Your task to perform on an android device: Do I have any events tomorrow? Image 0: 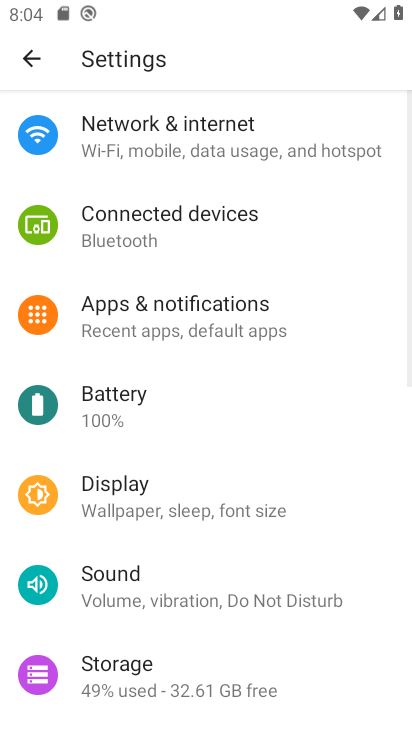
Step 0: press home button
Your task to perform on an android device: Do I have any events tomorrow? Image 1: 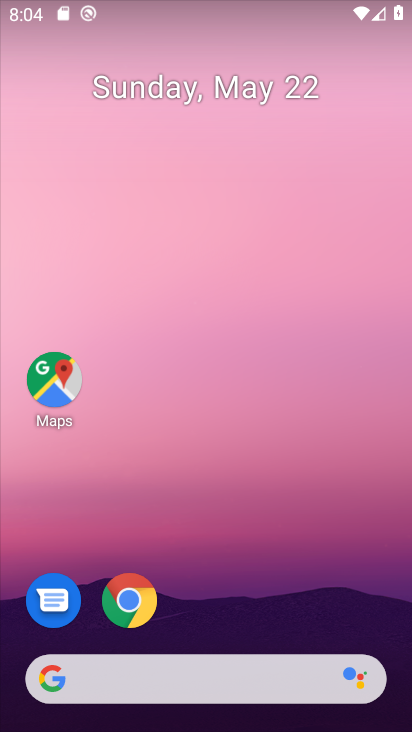
Step 1: drag from (190, 655) to (251, 298)
Your task to perform on an android device: Do I have any events tomorrow? Image 2: 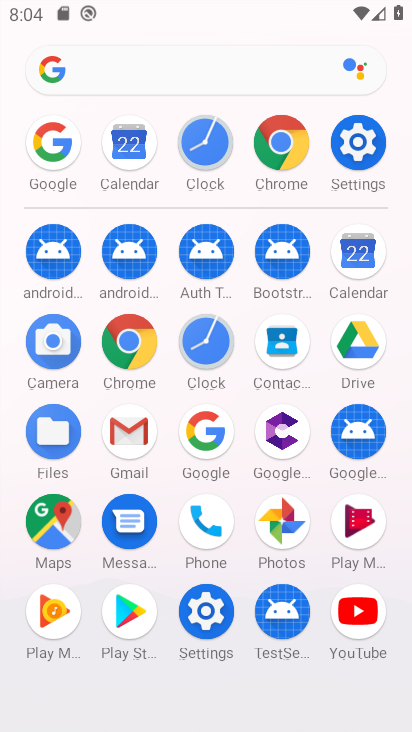
Step 2: click (363, 265)
Your task to perform on an android device: Do I have any events tomorrow? Image 3: 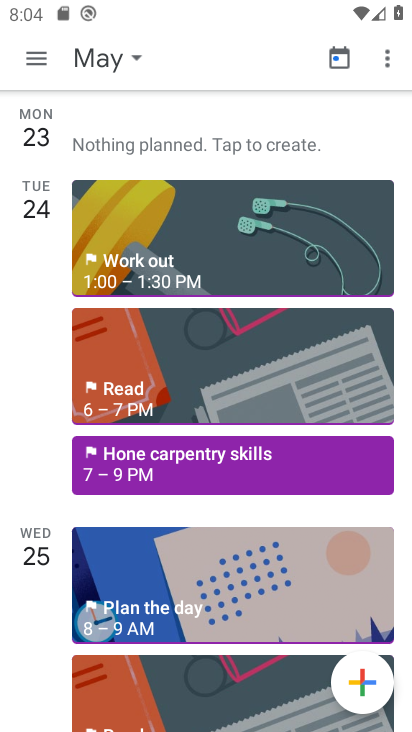
Step 3: click (124, 143)
Your task to perform on an android device: Do I have any events tomorrow? Image 4: 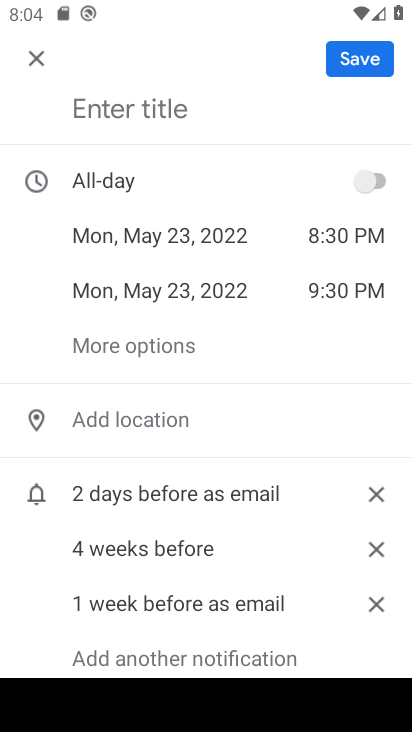
Step 4: task complete